Your task to perform on an android device: Go to Google Image 0: 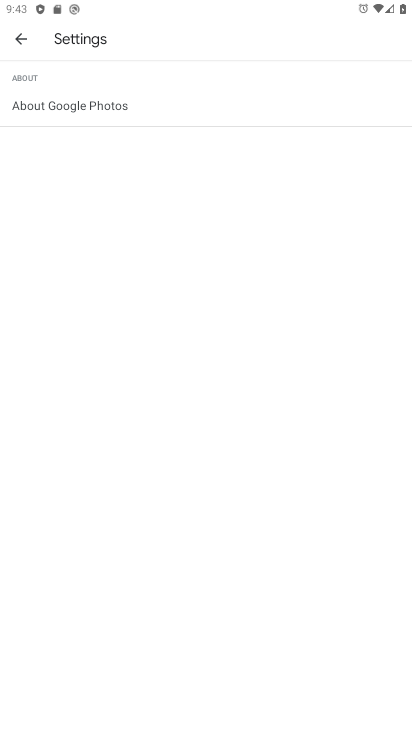
Step 0: press home button
Your task to perform on an android device: Go to Google Image 1: 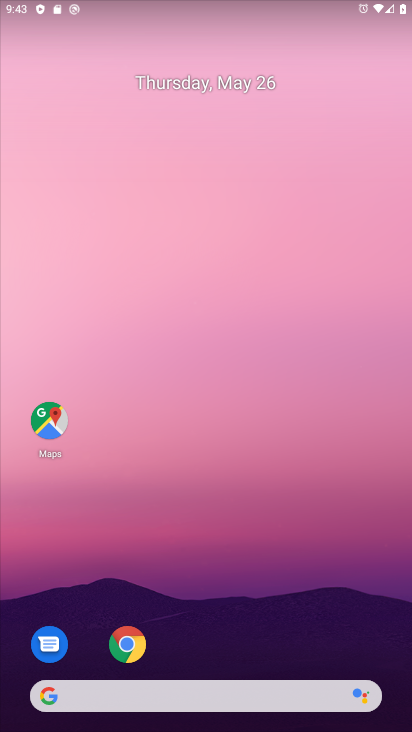
Step 1: drag from (239, 670) to (245, 337)
Your task to perform on an android device: Go to Google Image 2: 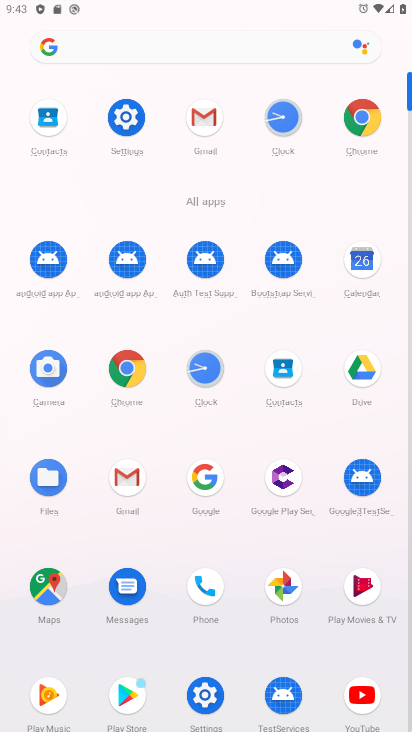
Step 2: click (211, 472)
Your task to perform on an android device: Go to Google Image 3: 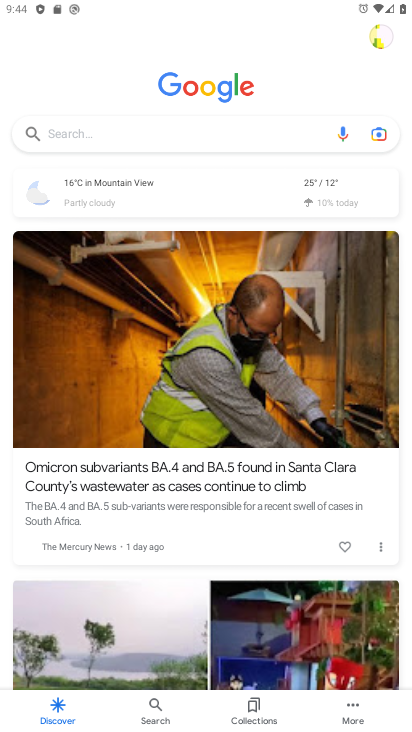
Step 3: task complete